Your task to perform on an android device: Open calendar and show me the fourth week of next month Image 0: 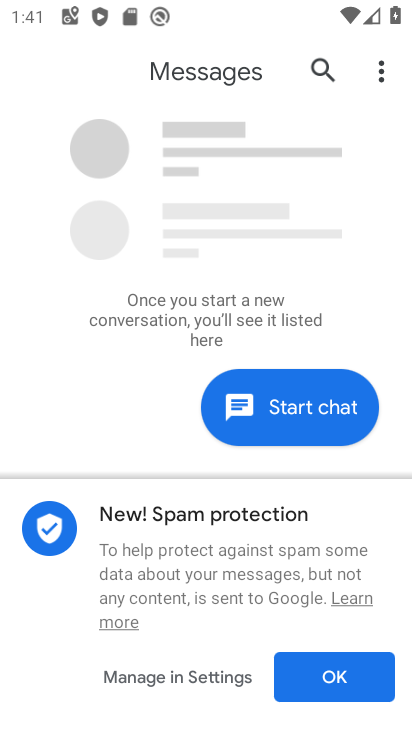
Step 0: press home button
Your task to perform on an android device: Open calendar and show me the fourth week of next month Image 1: 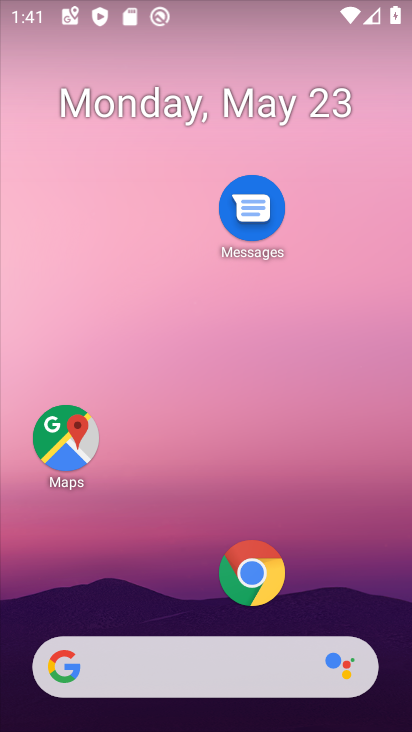
Step 1: drag from (211, 410) to (165, 3)
Your task to perform on an android device: Open calendar and show me the fourth week of next month Image 2: 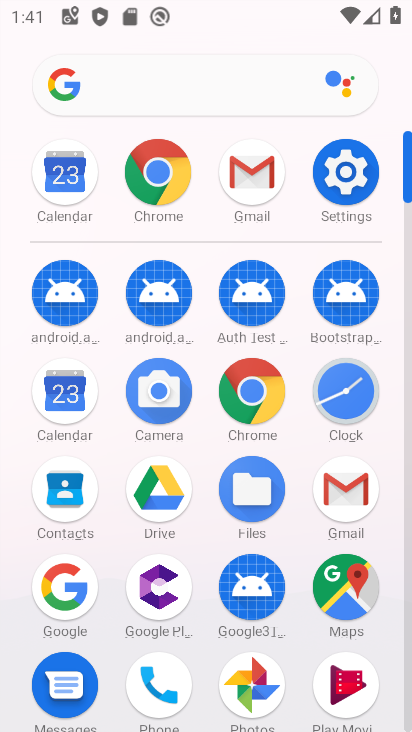
Step 2: click (46, 416)
Your task to perform on an android device: Open calendar and show me the fourth week of next month Image 3: 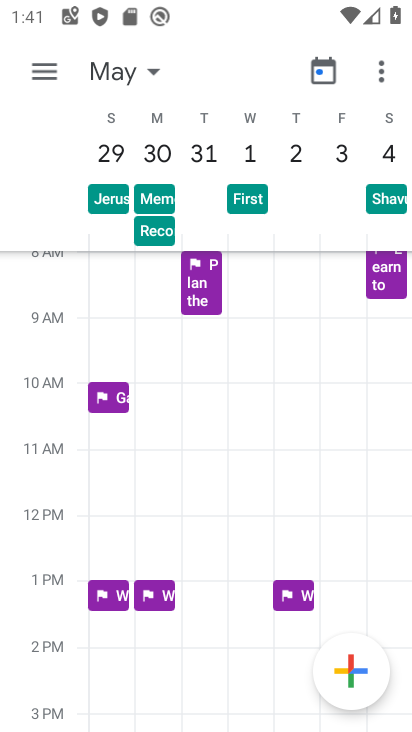
Step 3: click (151, 77)
Your task to perform on an android device: Open calendar and show me the fourth week of next month Image 4: 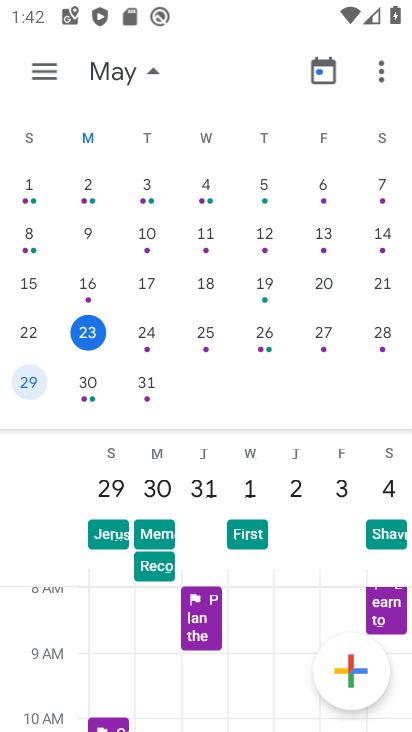
Step 4: drag from (326, 245) to (36, 230)
Your task to perform on an android device: Open calendar and show me the fourth week of next month Image 5: 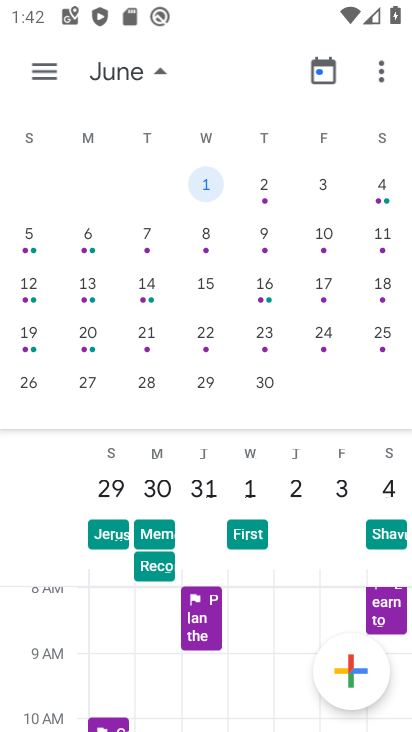
Step 5: click (149, 335)
Your task to perform on an android device: Open calendar and show me the fourth week of next month Image 6: 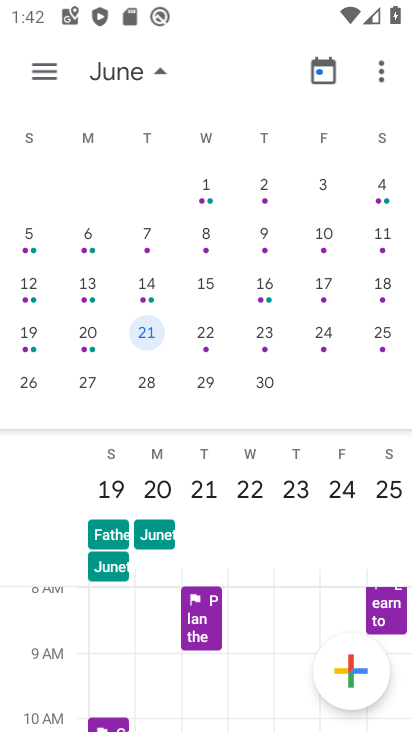
Step 6: click (202, 333)
Your task to perform on an android device: Open calendar and show me the fourth week of next month Image 7: 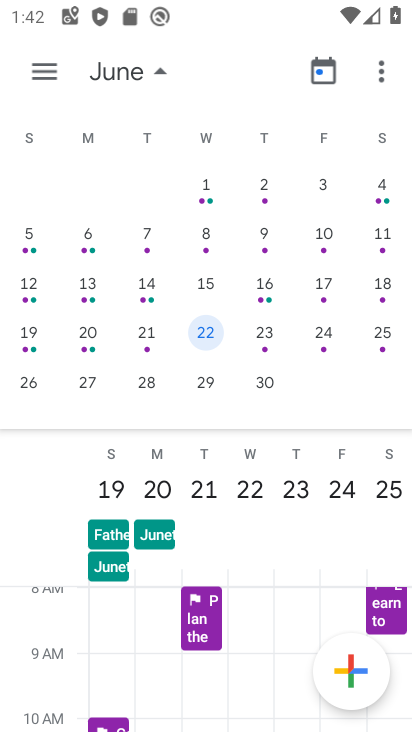
Step 7: click (45, 78)
Your task to perform on an android device: Open calendar and show me the fourth week of next month Image 8: 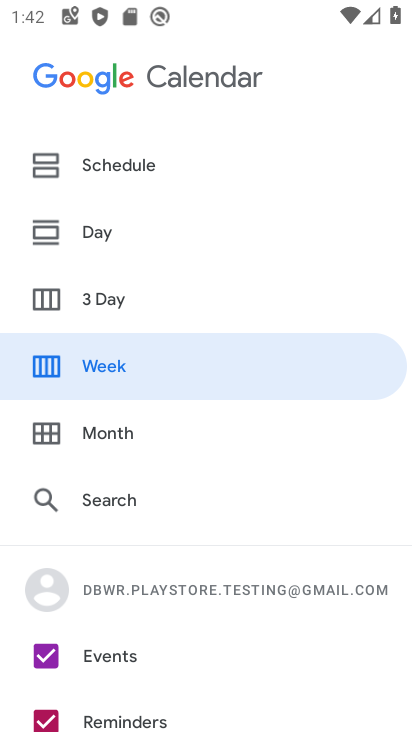
Step 8: click (116, 362)
Your task to perform on an android device: Open calendar and show me the fourth week of next month Image 9: 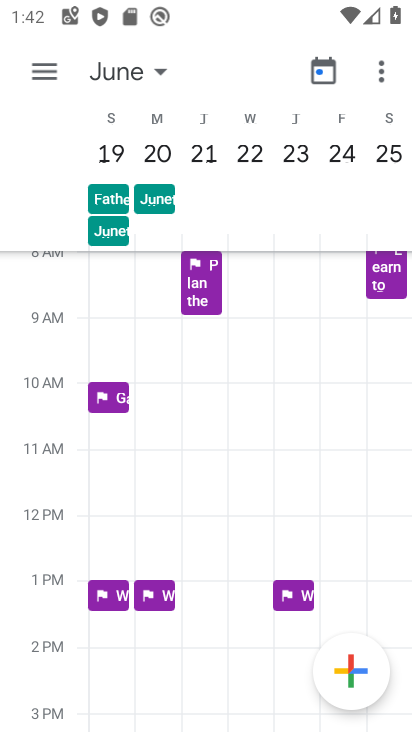
Step 9: task complete